Your task to perform on an android device: turn on wifi Image 0: 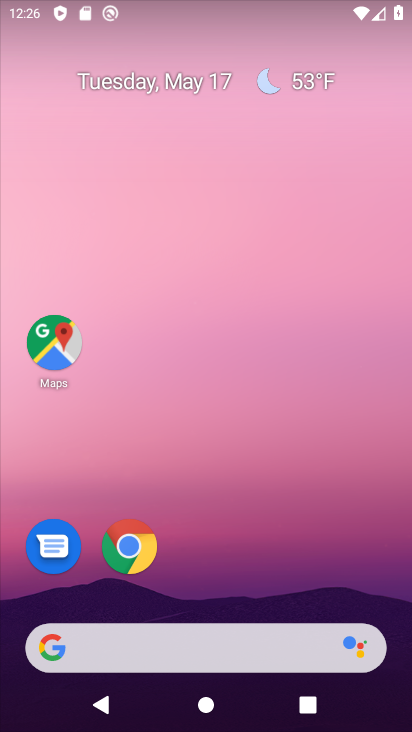
Step 0: drag from (190, 605) to (225, 194)
Your task to perform on an android device: turn on wifi Image 1: 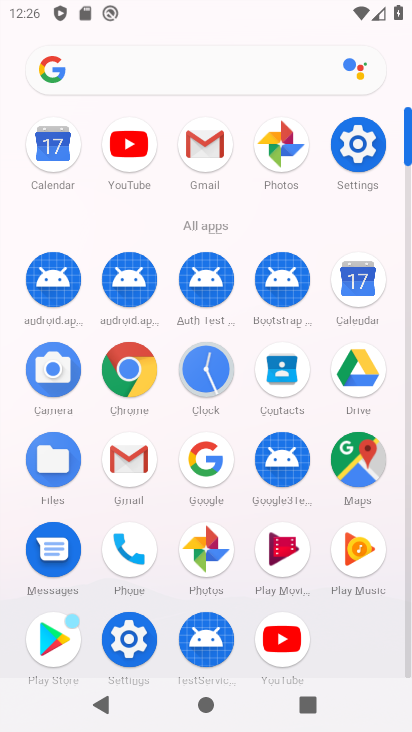
Step 1: click (346, 146)
Your task to perform on an android device: turn on wifi Image 2: 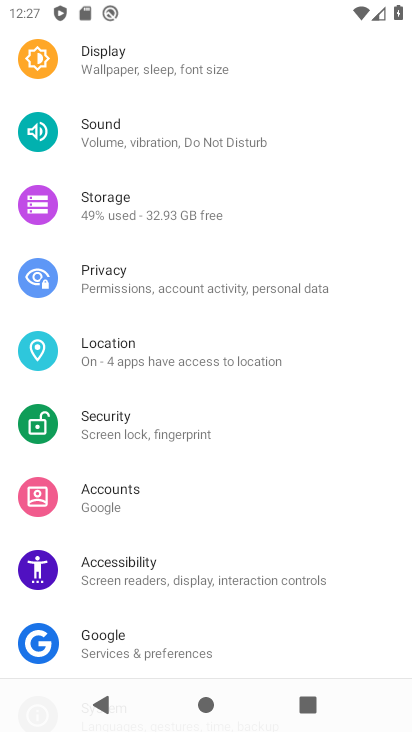
Step 2: drag from (166, 156) to (171, 487)
Your task to perform on an android device: turn on wifi Image 3: 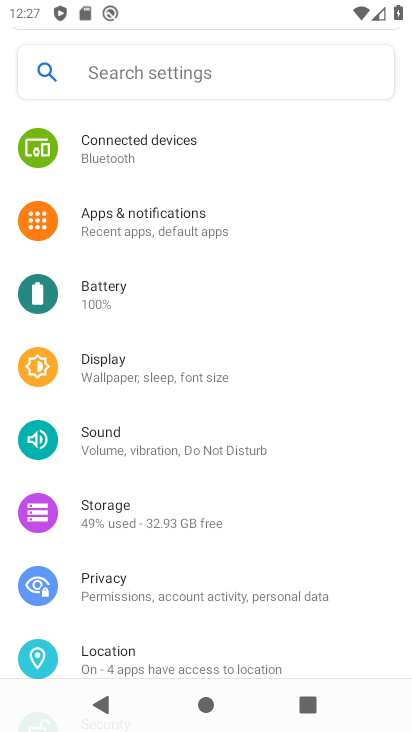
Step 3: drag from (168, 164) to (185, 492)
Your task to perform on an android device: turn on wifi Image 4: 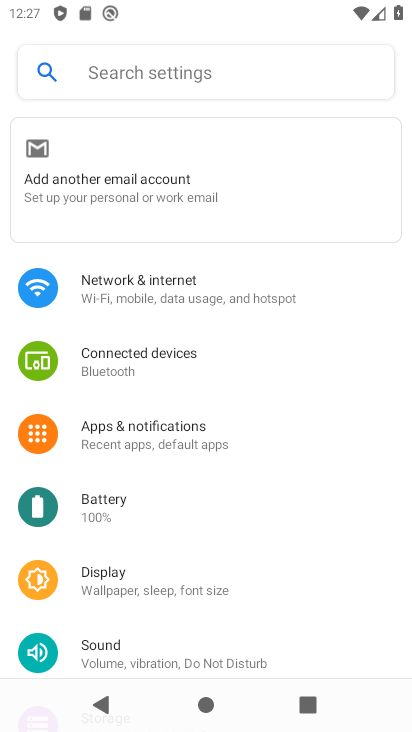
Step 4: click (154, 293)
Your task to perform on an android device: turn on wifi Image 5: 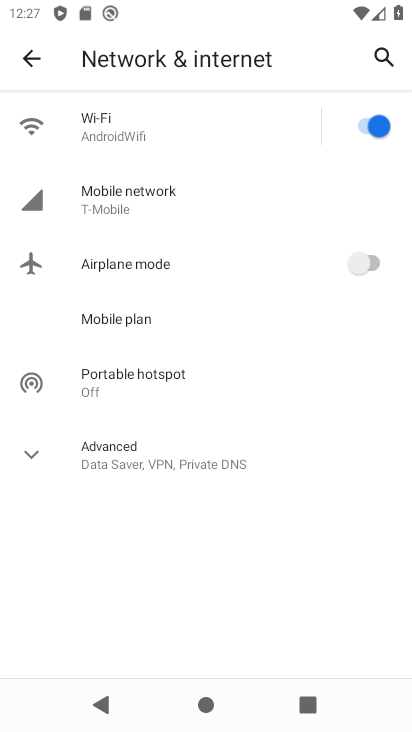
Step 5: click (133, 137)
Your task to perform on an android device: turn on wifi Image 6: 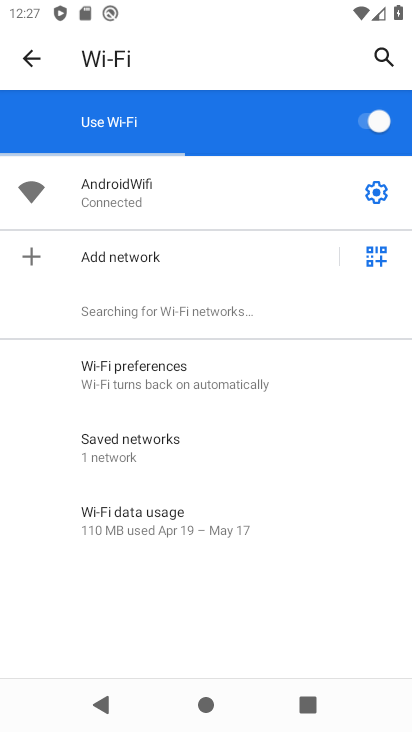
Step 6: task complete